Your task to perform on an android device: Open Youtube and go to the subscriptions tab Image 0: 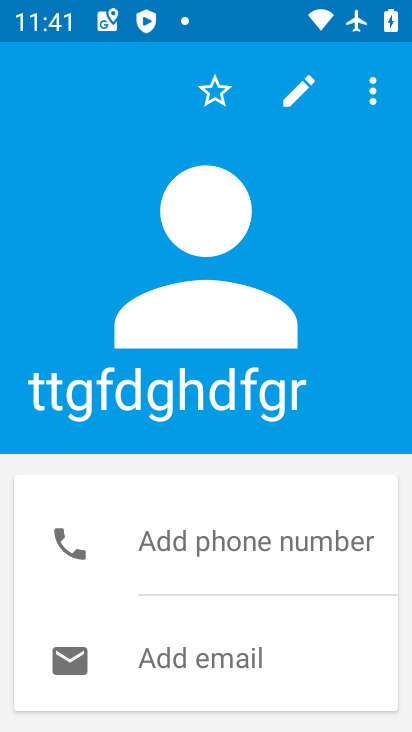
Step 0: press home button
Your task to perform on an android device: Open Youtube and go to the subscriptions tab Image 1: 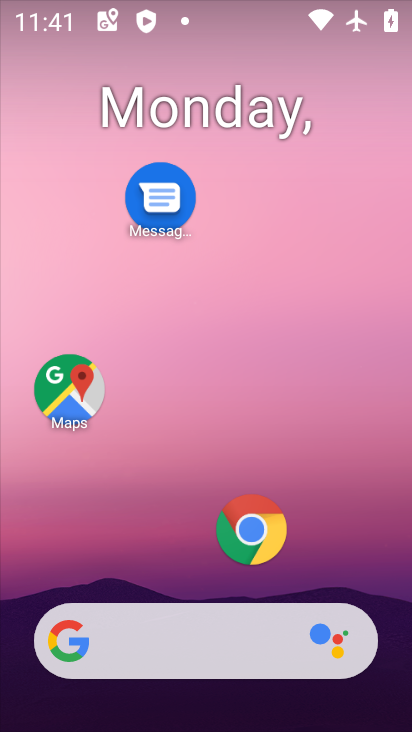
Step 1: drag from (120, 515) to (254, 164)
Your task to perform on an android device: Open Youtube and go to the subscriptions tab Image 2: 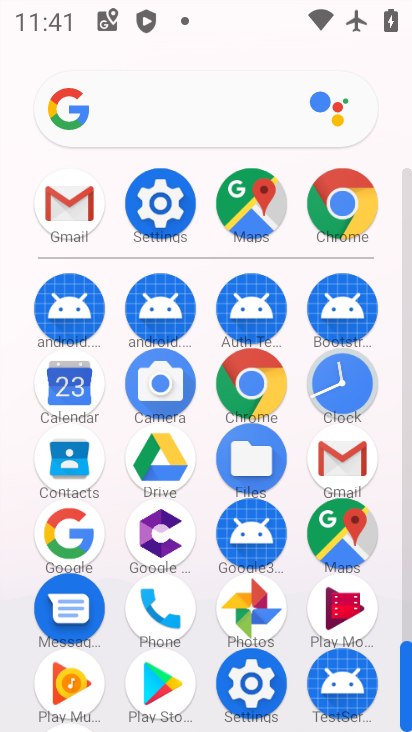
Step 2: drag from (204, 173) to (198, 25)
Your task to perform on an android device: Open Youtube and go to the subscriptions tab Image 3: 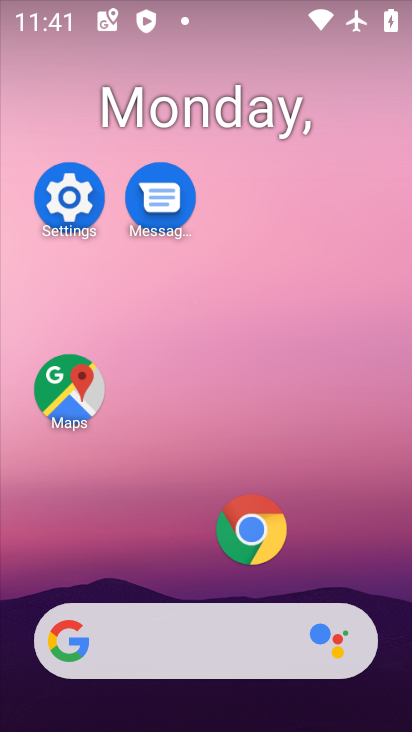
Step 3: drag from (186, 495) to (218, 31)
Your task to perform on an android device: Open Youtube and go to the subscriptions tab Image 4: 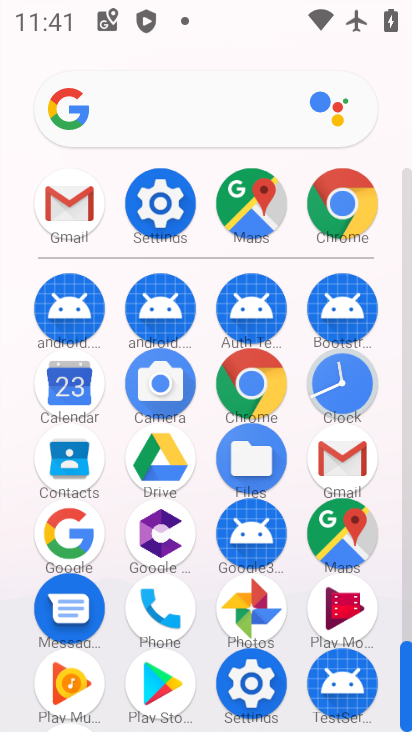
Step 4: drag from (201, 265) to (202, 114)
Your task to perform on an android device: Open Youtube and go to the subscriptions tab Image 5: 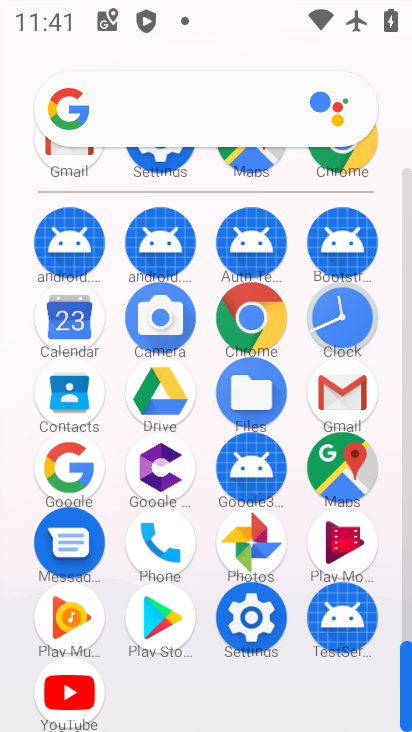
Step 5: click (67, 714)
Your task to perform on an android device: Open Youtube and go to the subscriptions tab Image 6: 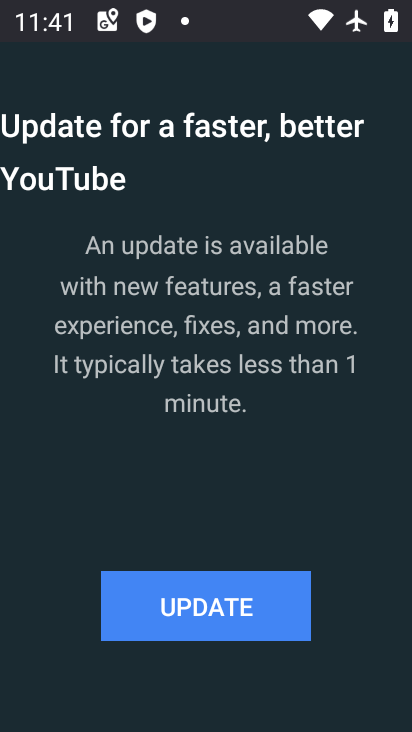
Step 6: click (244, 607)
Your task to perform on an android device: Open Youtube and go to the subscriptions tab Image 7: 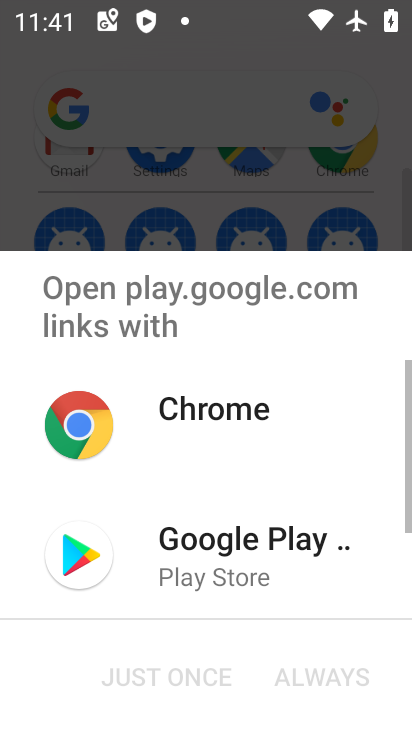
Step 7: click (245, 565)
Your task to perform on an android device: Open Youtube and go to the subscriptions tab Image 8: 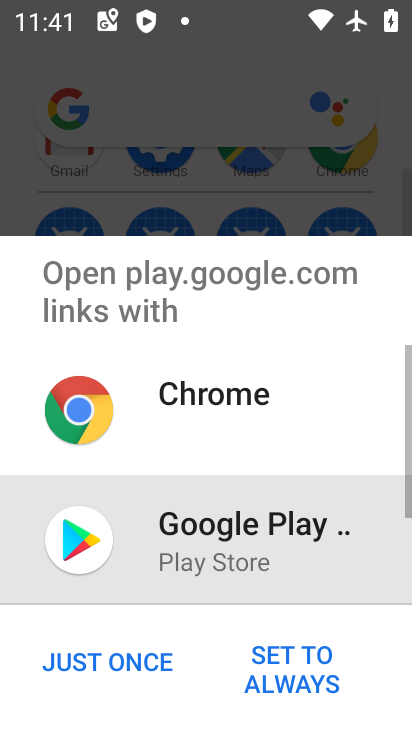
Step 8: click (141, 656)
Your task to perform on an android device: Open Youtube and go to the subscriptions tab Image 9: 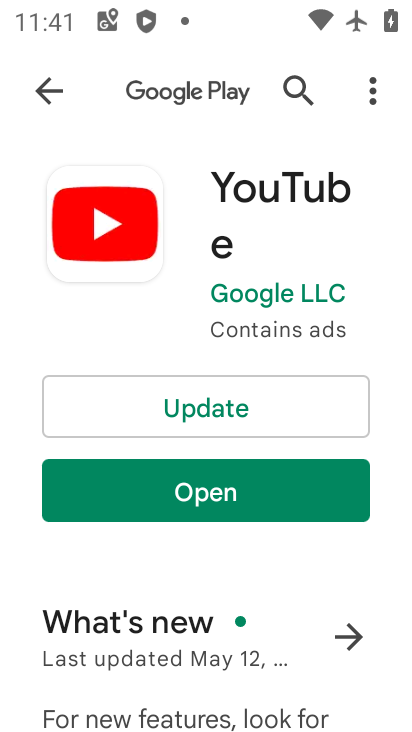
Step 9: click (252, 411)
Your task to perform on an android device: Open Youtube and go to the subscriptions tab Image 10: 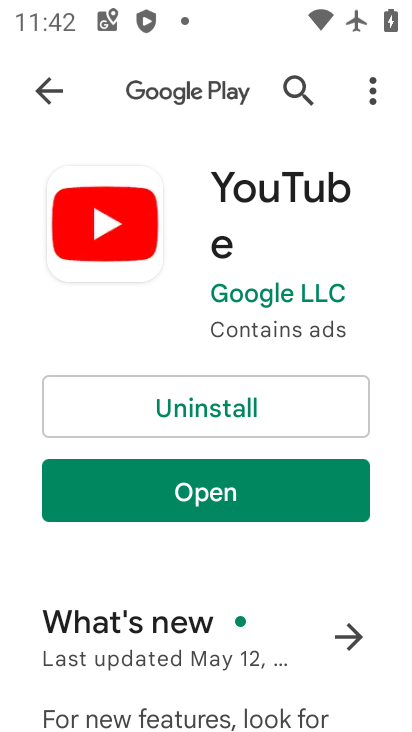
Step 10: click (235, 495)
Your task to perform on an android device: Open Youtube and go to the subscriptions tab Image 11: 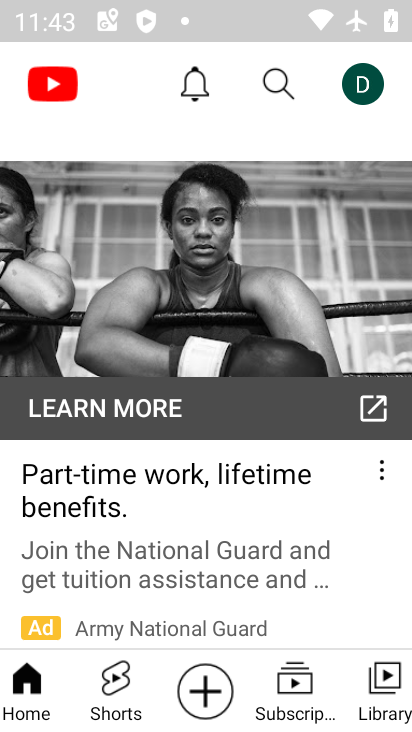
Step 11: click (290, 694)
Your task to perform on an android device: Open Youtube and go to the subscriptions tab Image 12: 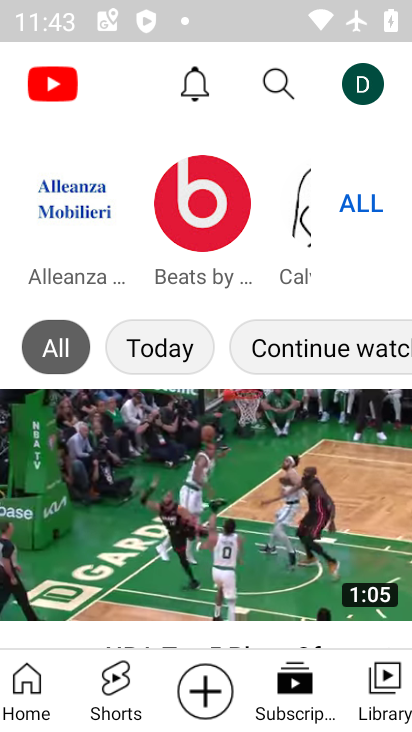
Step 12: task complete